Your task to perform on an android device: turn on priority inbox in the gmail app Image 0: 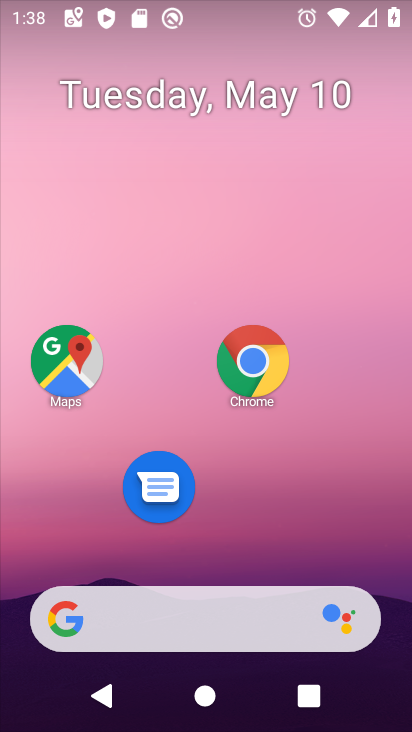
Step 0: drag from (277, 551) to (151, 149)
Your task to perform on an android device: turn on priority inbox in the gmail app Image 1: 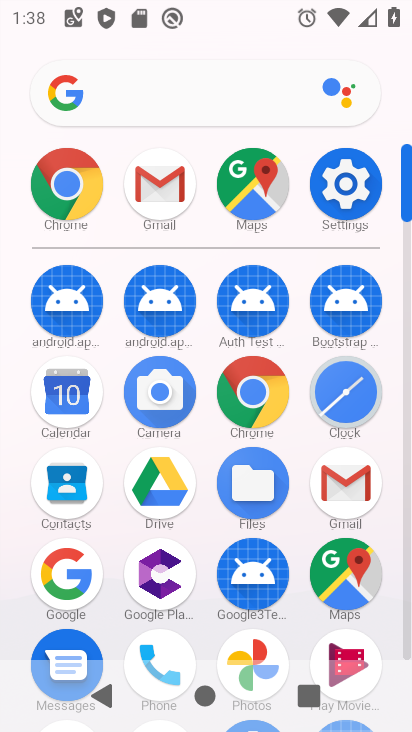
Step 1: click (336, 504)
Your task to perform on an android device: turn on priority inbox in the gmail app Image 2: 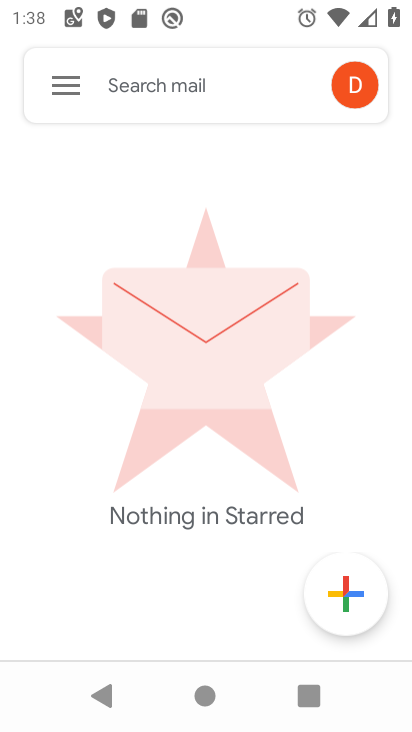
Step 2: click (65, 108)
Your task to perform on an android device: turn on priority inbox in the gmail app Image 3: 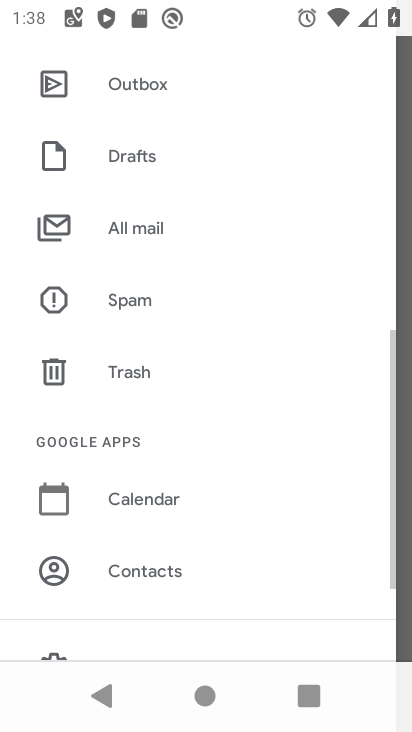
Step 3: drag from (94, 460) to (68, 202)
Your task to perform on an android device: turn on priority inbox in the gmail app Image 4: 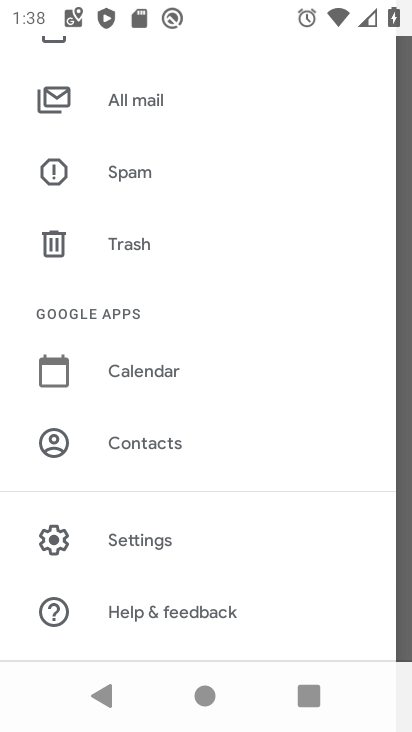
Step 4: click (68, 526)
Your task to perform on an android device: turn on priority inbox in the gmail app Image 5: 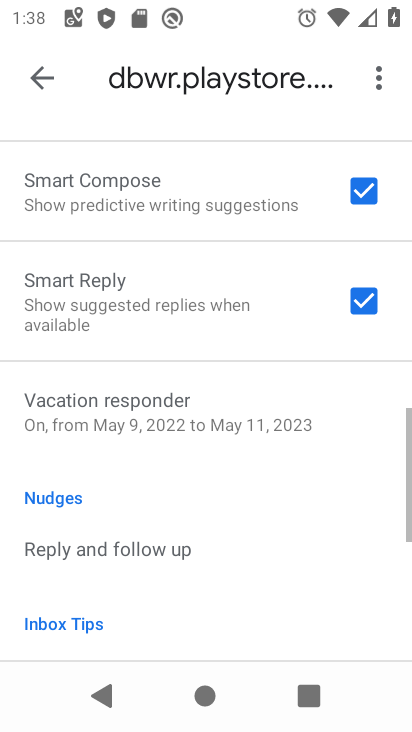
Step 5: task complete